Your task to perform on an android device: Open notification settings Image 0: 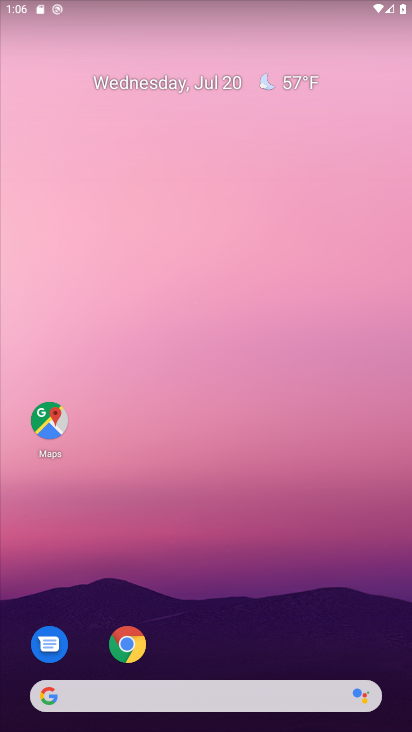
Step 0: drag from (222, 630) to (252, 354)
Your task to perform on an android device: Open notification settings Image 1: 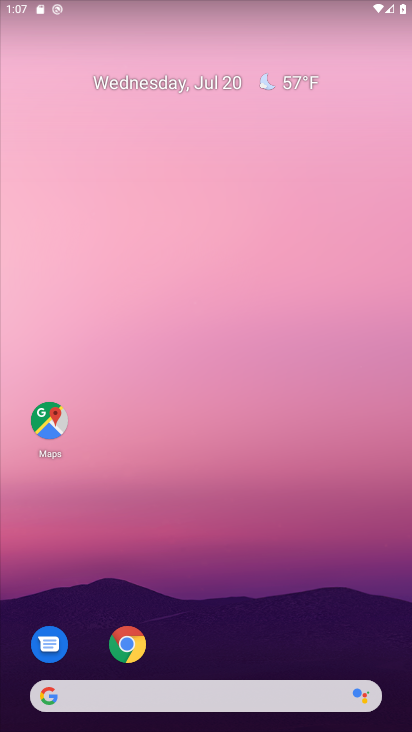
Step 1: click (312, 146)
Your task to perform on an android device: Open notification settings Image 2: 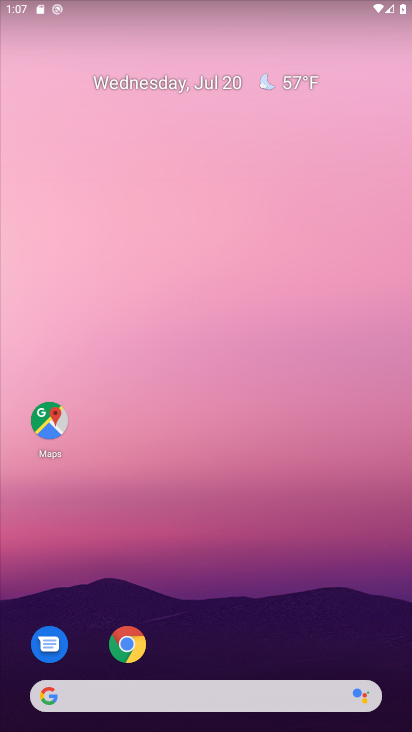
Step 2: drag from (270, 610) to (271, 326)
Your task to perform on an android device: Open notification settings Image 3: 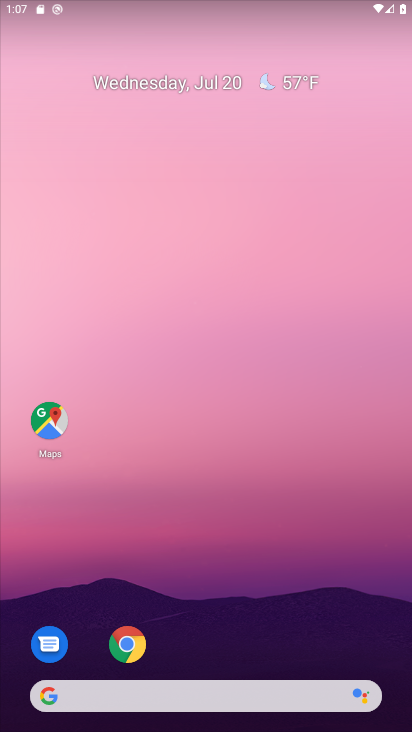
Step 3: click (236, 226)
Your task to perform on an android device: Open notification settings Image 4: 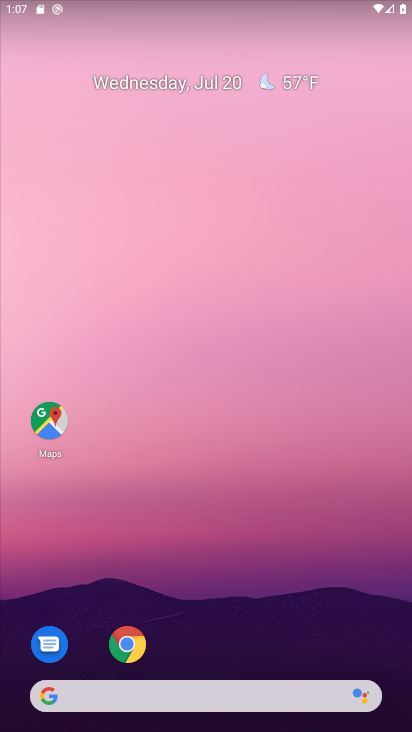
Step 4: drag from (233, 525) to (266, 53)
Your task to perform on an android device: Open notification settings Image 5: 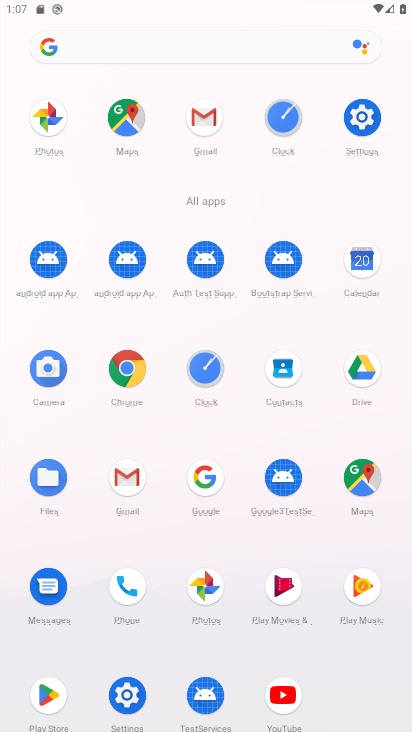
Step 5: click (356, 118)
Your task to perform on an android device: Open notification settings Image 6: 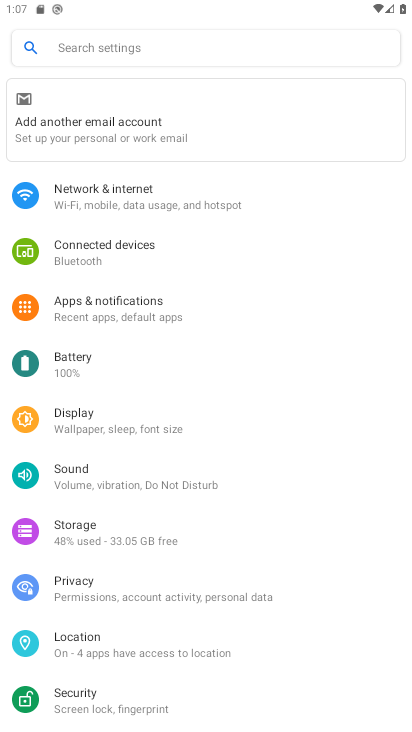
Step 6: task complete